Your task to perform on an android device: change notifications settings Image 0: 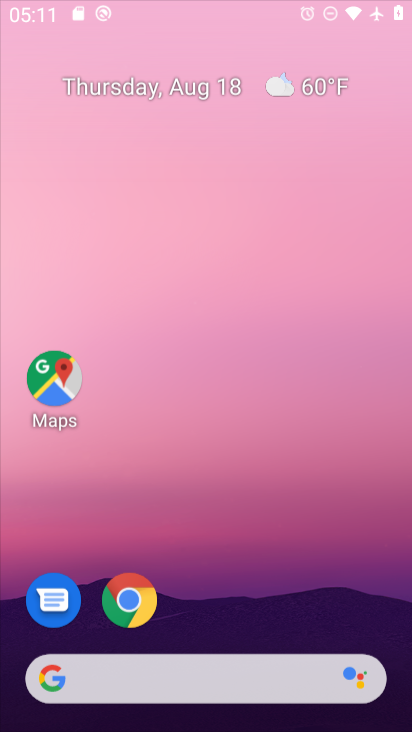
Step 0: press home button
Your task to perform on an android device: change notifications settings Image 1: 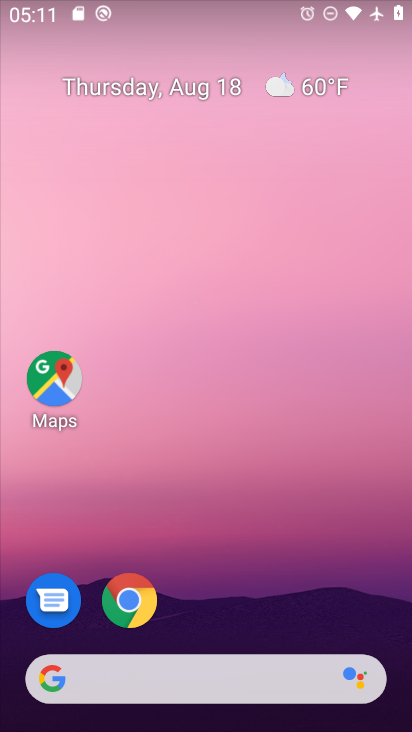
Step 1: drag from (262, 621) to (258, 0)
Your task to perform on an android device: change notifications settings Image 2: 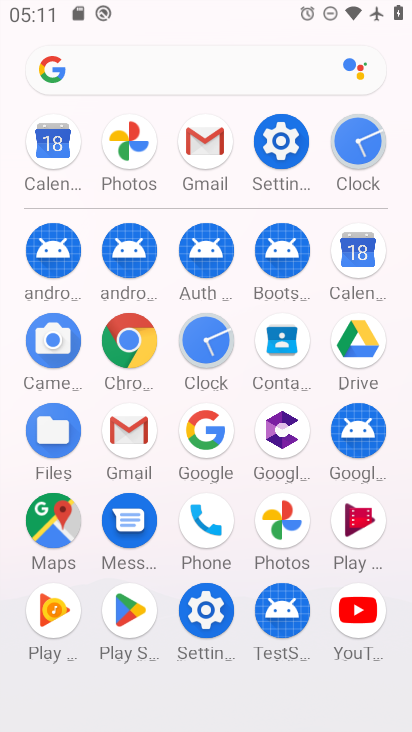
Step 2: click (284, 154)
Your task to perform on an android device: change notifications settings Image 3: 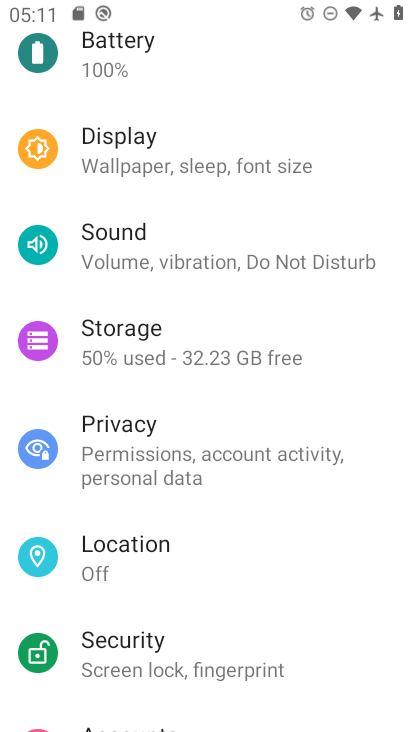
Step 3: drag from (265, 103) to (315, 645)
Your task to perform on an android device: change notifications settings Image 4: 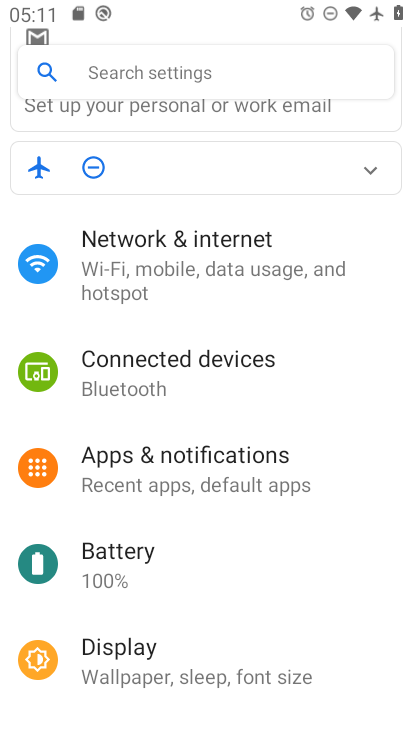
Step 4: click (168, 476)
Your task to perform on an android device: change notifications settings Image 5: 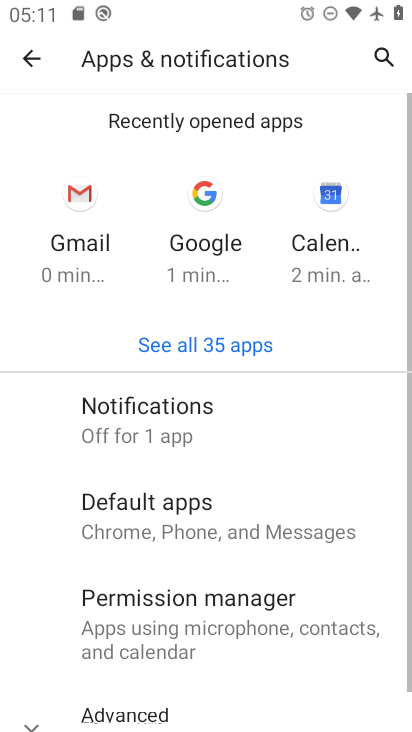
Step 5: click (160, 441)
Your task to perform on an android device: change notifications settings Image 6: 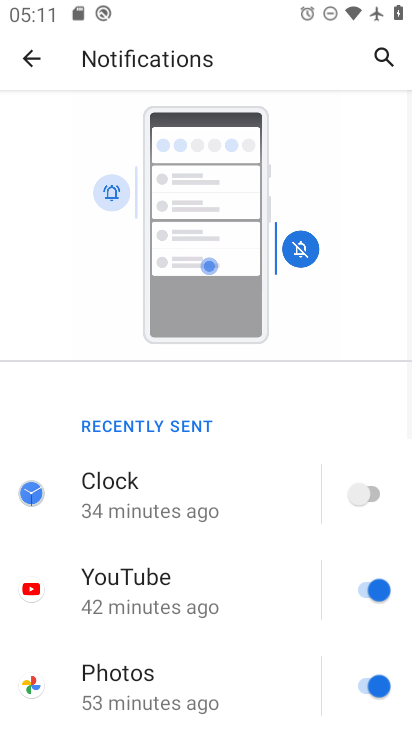
Step 6: drag from (310, 677) to (376, 68)
Your task to perform on an android device: change notifications settings Image 7: 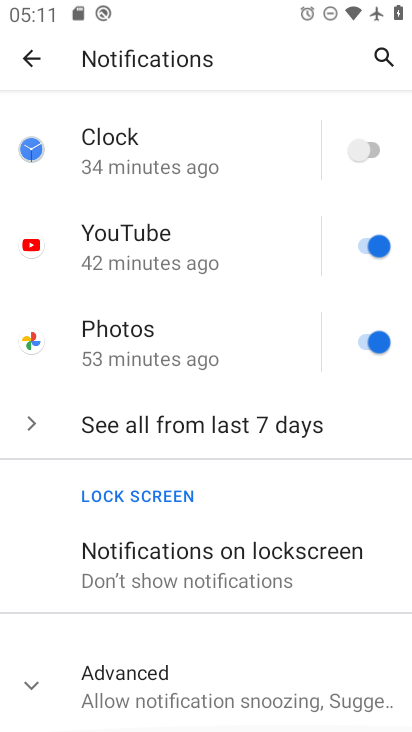
Step 7: click (176, 575)
Your task to perform on an android device: change notifications settings Image 8: 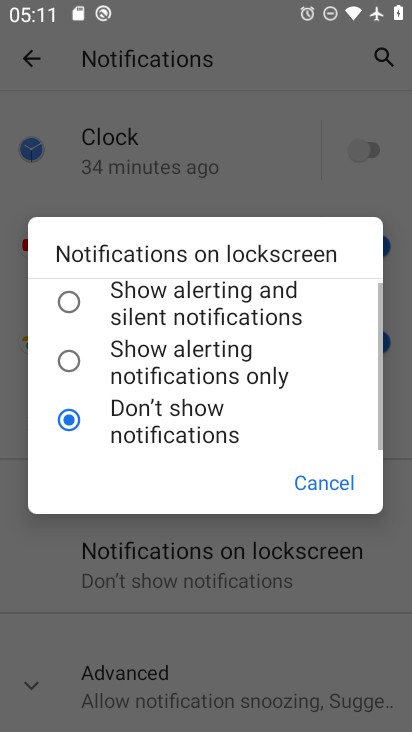
Step 8: click (75, 305)
Your task to perform on an android device: change notifications settings Image 9: 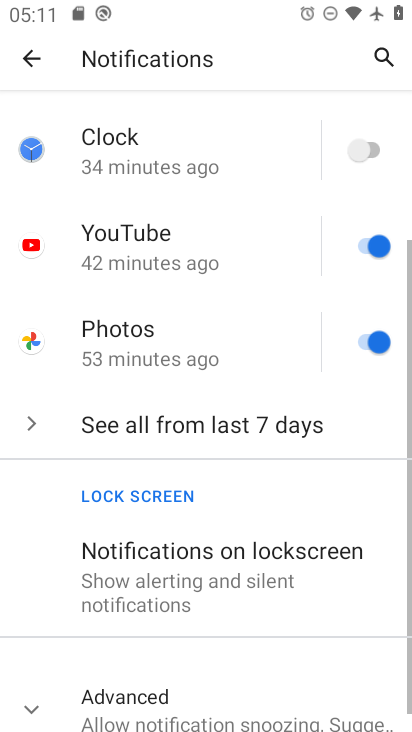
Step 9: task complete